Your task to perform on an android device: turn on location history Image 0: 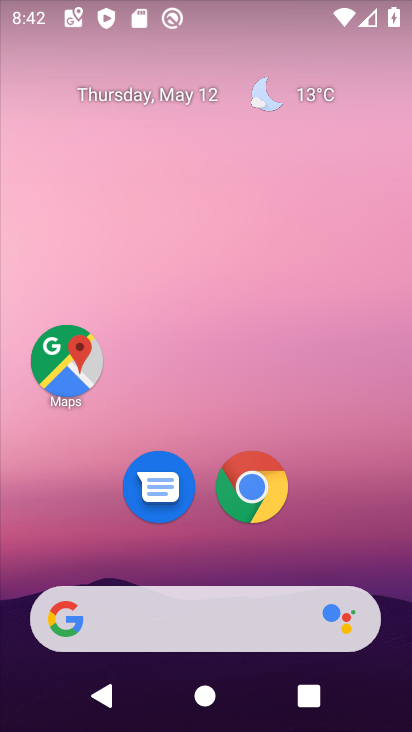
Step 0: click (377, 552)
Your task to perform on an android device: turn on location history Image 1: 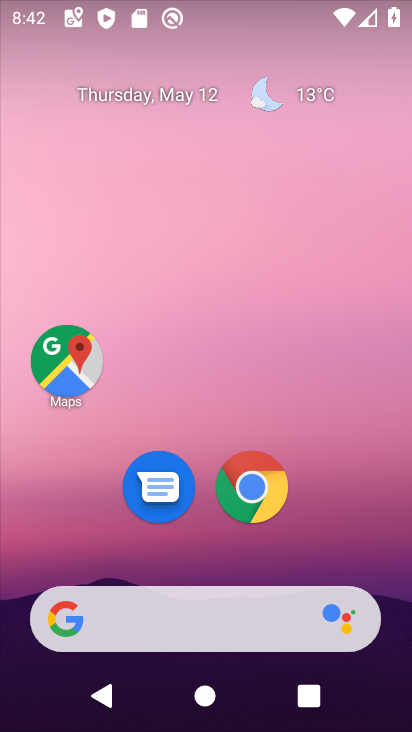
Step 1: click (58, 365)
Your task to perform on an android device: turn on location history Image 2: 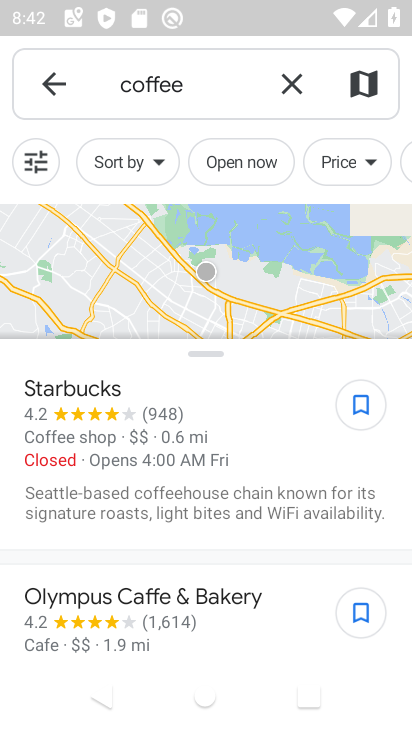
Step 2: click (291, 87)
Your task to perform on an android device: turn on location history Image 3: 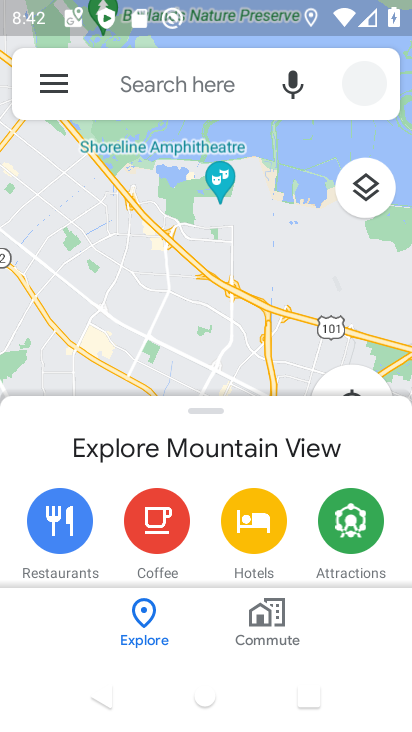
Step 3: click (52, 85)
Your task to perform on an android device: turn on location history Image 4: 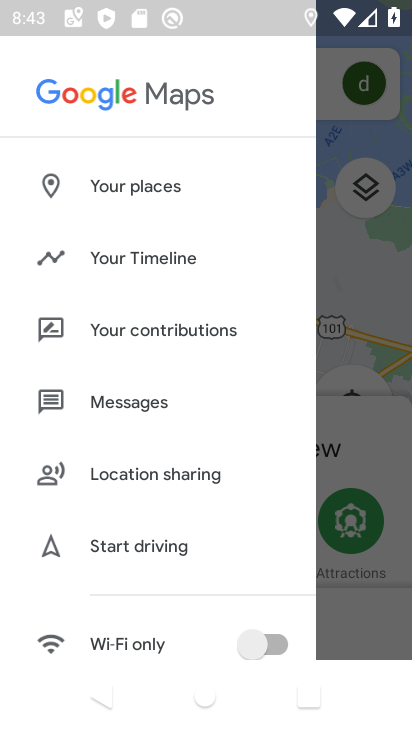
Step 4: click (145, 252)
Your task to perform on an android device: turn on location history Image 5: 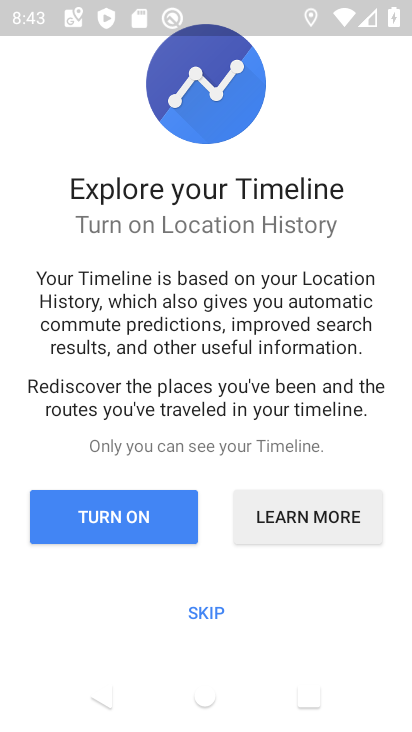
Step 5: click (196, 618)
Your task to perform on an android device: turn on location history Image 6: 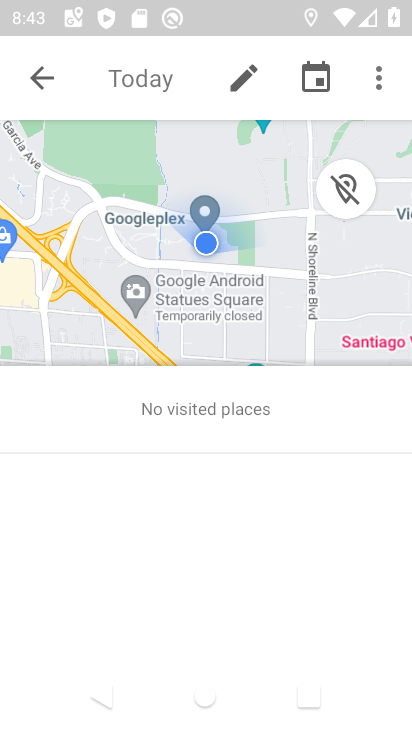
Step 6: click (375, 78)
Your task to perform on an android device: turn on location history Image 7: 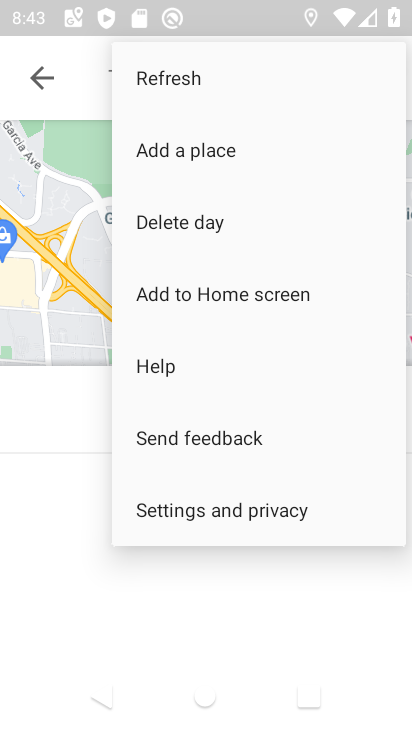
Step 7: click (241, 503)
Your task to perform on an android device: turn on location history Image 8: 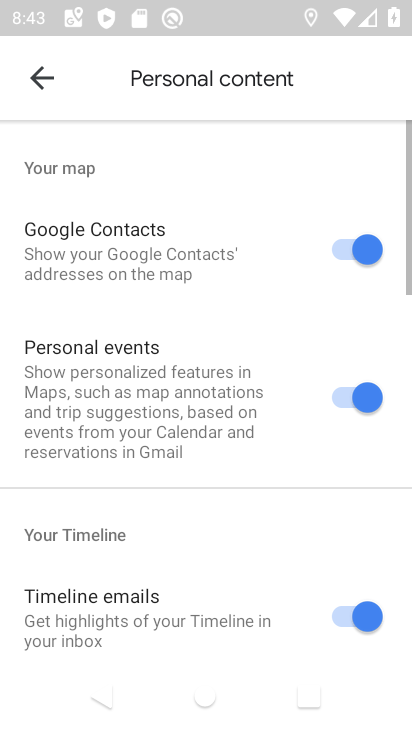
Step 8: drag from (205, 558) to (203, 53)
Your task to perform on an android device: turn on location history Image 9: 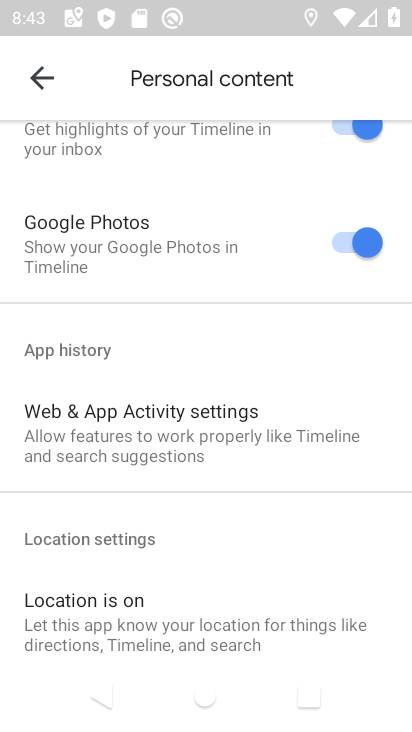
Step 9: drag from (179, 515) to (231, 14)
Your task to perform on an android device: turn on location history Image 10: 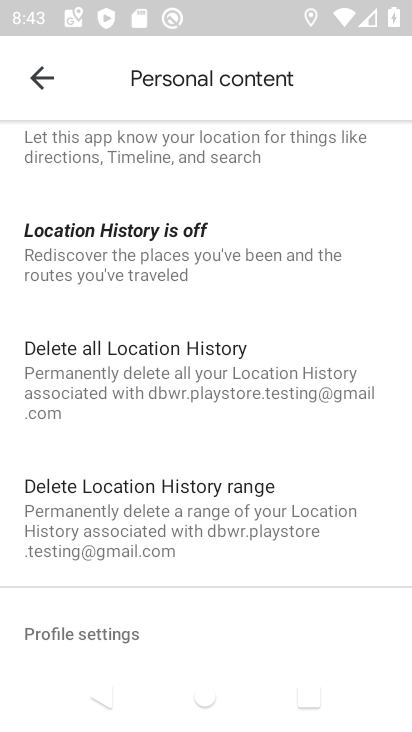
Step 10: click (140, 260)
Your task to perform on an android device: turn on location history Image 11: 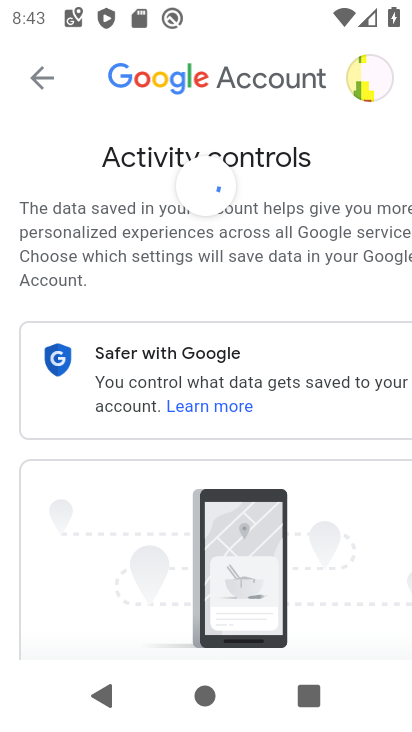
Step 11: drag from (215, 549) to (238, 100)
Your task to perform on an android device: turn on location history Image 12: 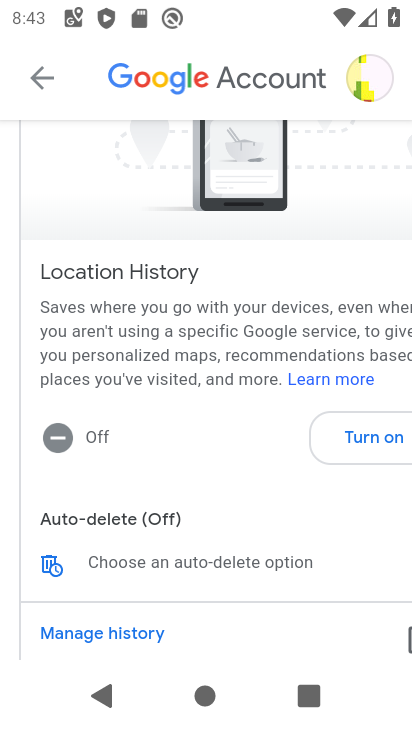
Step 12: click (377, 438)
Your task to perform on an android device: turn on location history Image 13: 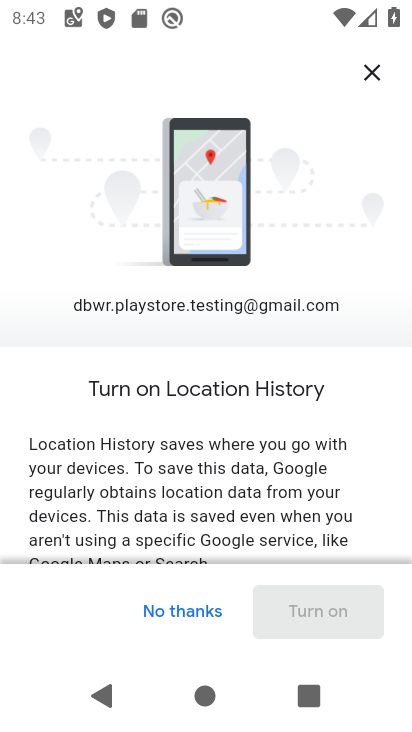
Step 13: drag from (242, 498) to (249, 28)
Your task to perform on an android device: turn on location history Image 14: 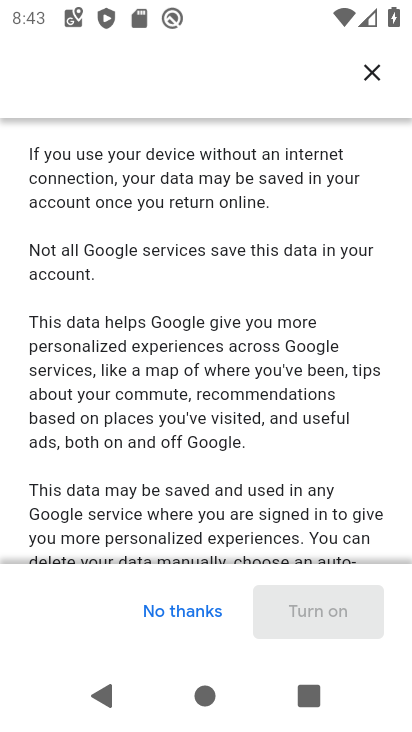
Step 14: drag from (175, 470) to (182, 19)
Your task to perform on an android device: turn on location history Image 15: 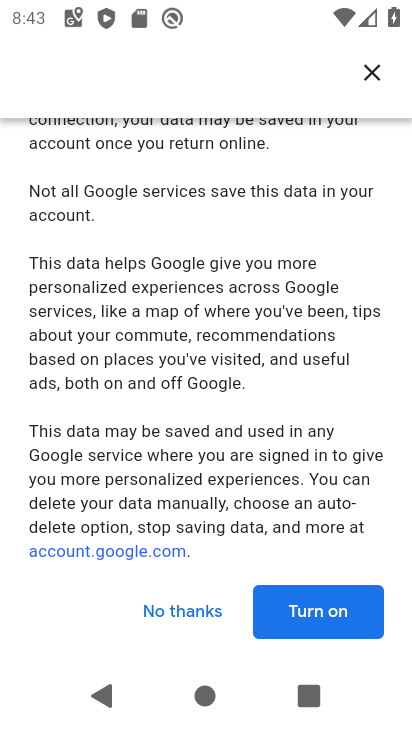
Step 15: click (308, 622)
Your task to perform on an android device: turn on location history Image 16: 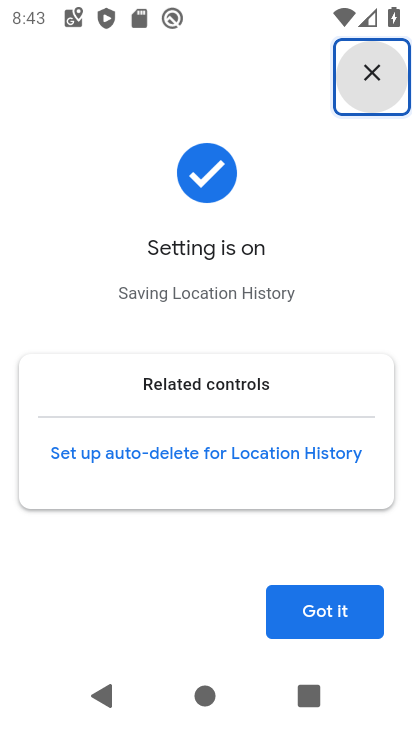
Step 16: click (325, 616)
Your task to perform on an android device: turn on location history Image 17: 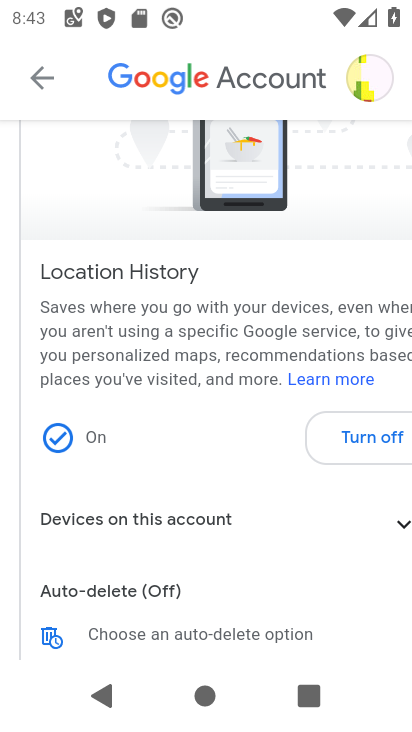
Step 17: task complete